Your task to perform on an android device: Go to notification settings Image 0: 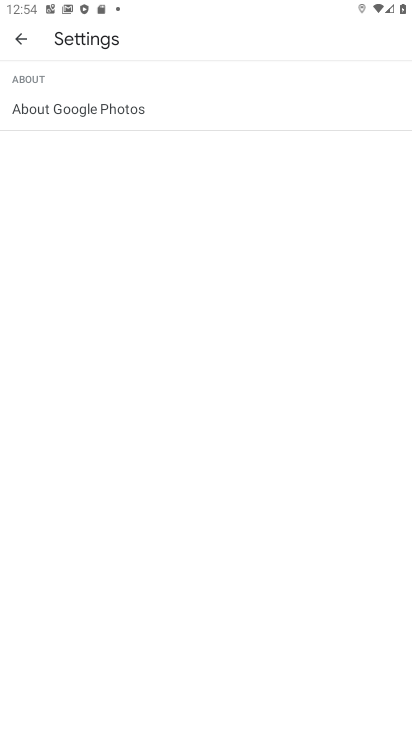
Step 0: press home button
Your task to perform on an android device: Go to notification settings Image 1: 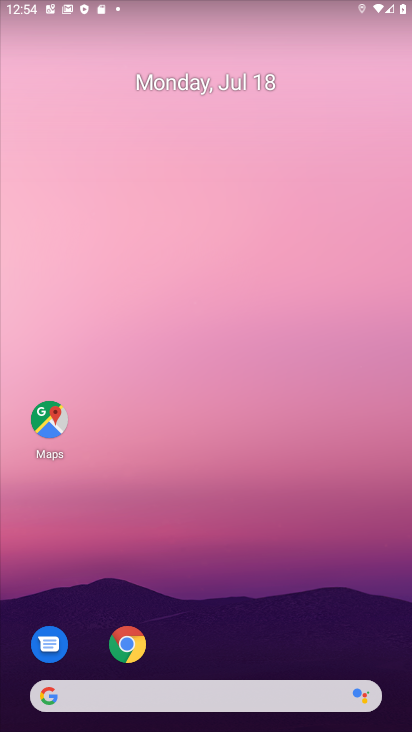
Step 1: drag from (288, 643) to (293, 43)
Your task to perform on an android device: Go to notification settings Image 2: 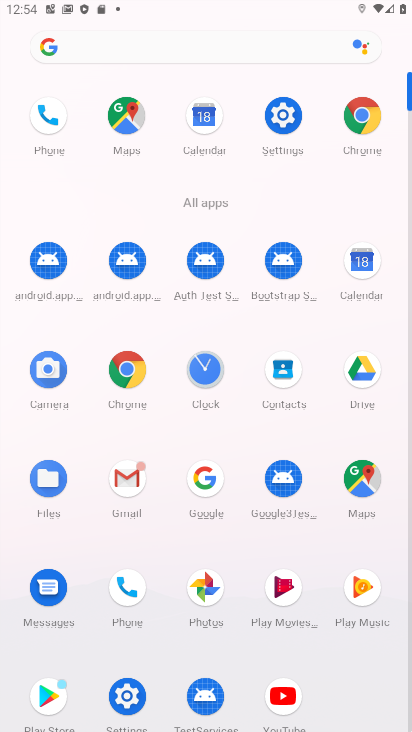
Step 2: click (288, 120)
Your task to perform on an android device: Go to notification settings Image 3: 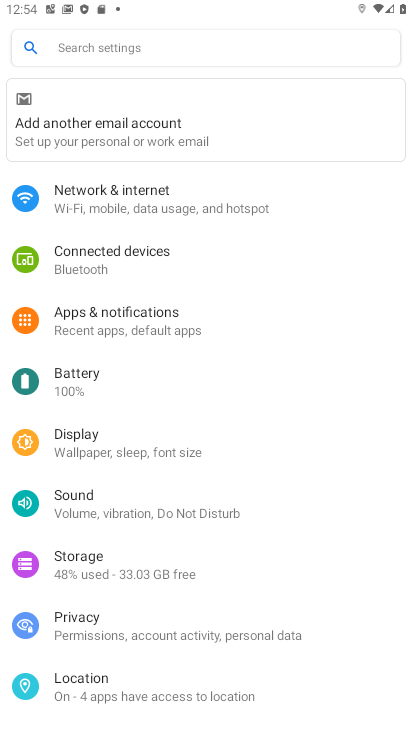
Step 3: click (152, 323)
Your task to perform on an android device: Go to notification settings Image 4: 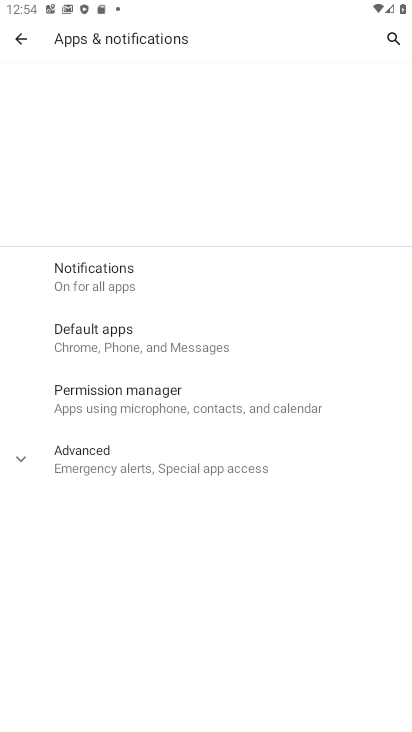
Step 4: click (130, 254)
Your task to perform on an android device: Go to notification settings Image 5: 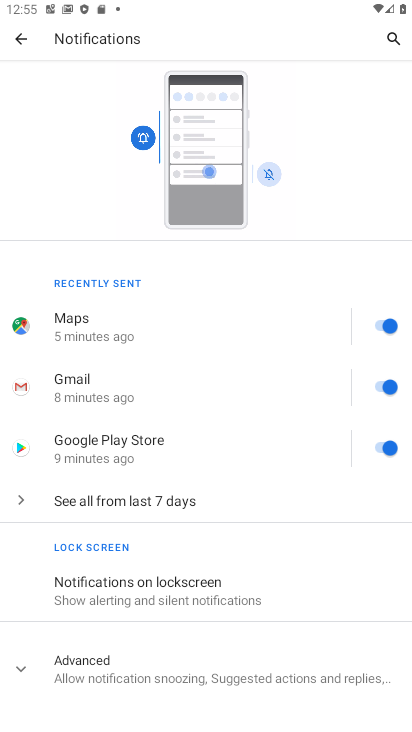
Step 5: task complete